Your task to perform on an android device: change timer sound Image 0: 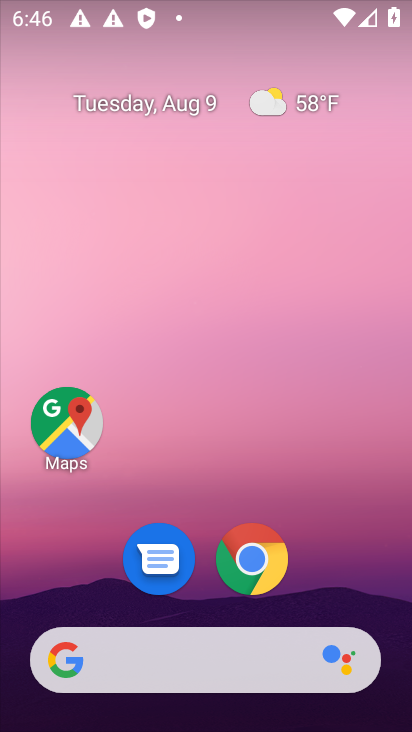
Step 0: drag from (200, 552) to (203, 161)
Your task to perform on an android device: change timer sound Image 1: 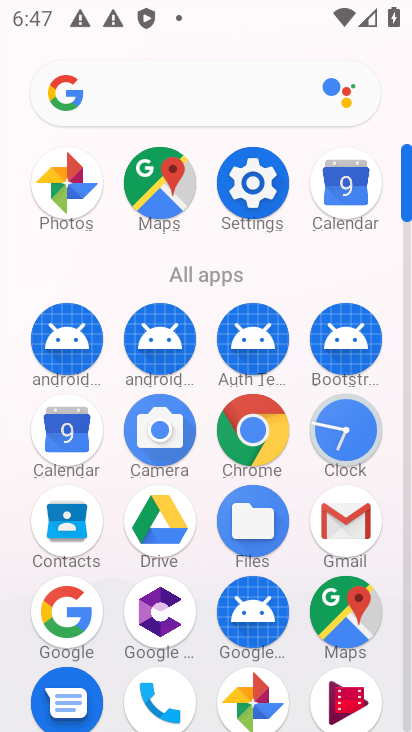
Step 1: click (255, 181)
Your task to perform on an android device: change timer sound Image 2: 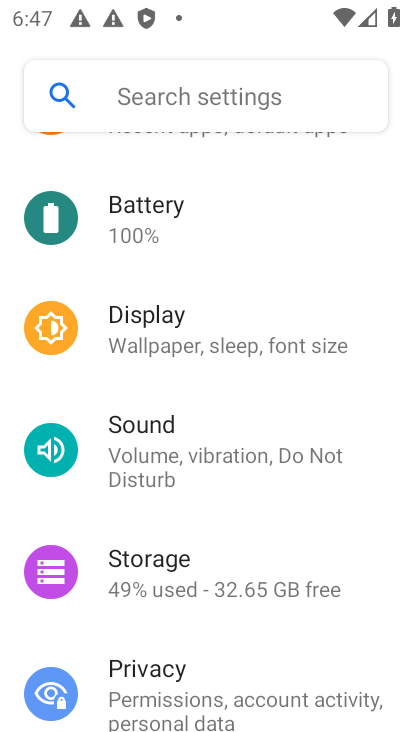
Step 2: press back button
Your task to perform on an android device: change timer sound Image 3: 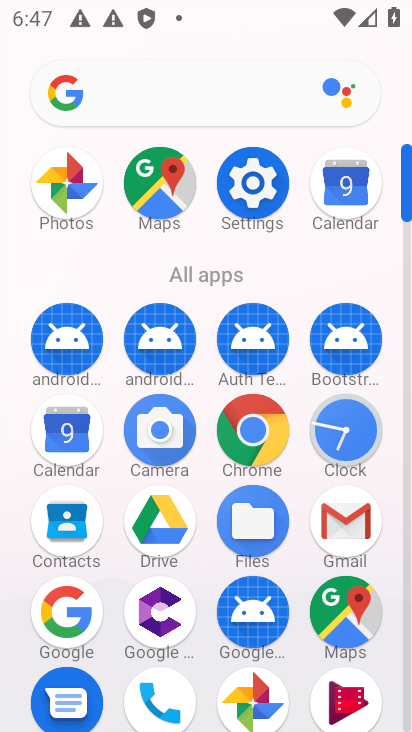
Step 3: click (344, 436)
Your task to perform on an android device: change timer sound Image 4: 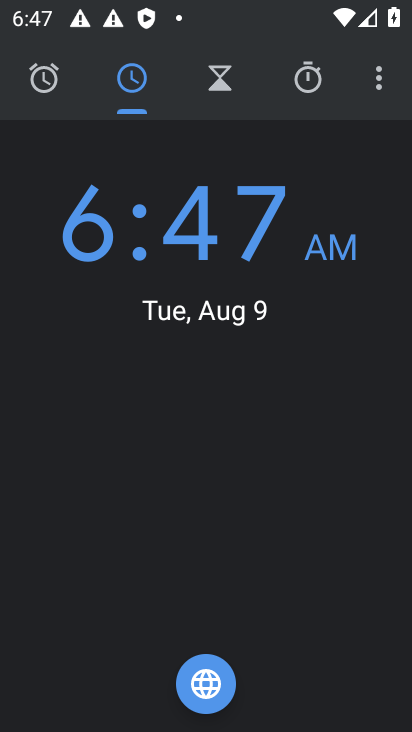
Step 4: click (376, 76)
Your task to perform on an android device: change timer sound Image 5: 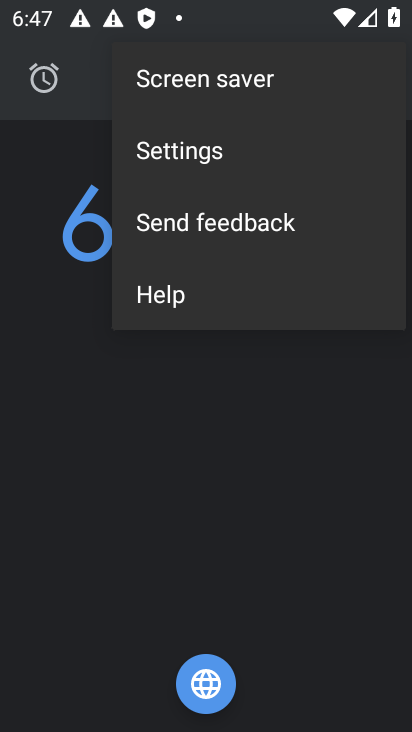
Step 5: click (217, 148)
Your task to perform on an android device: change timer sound Image 6: 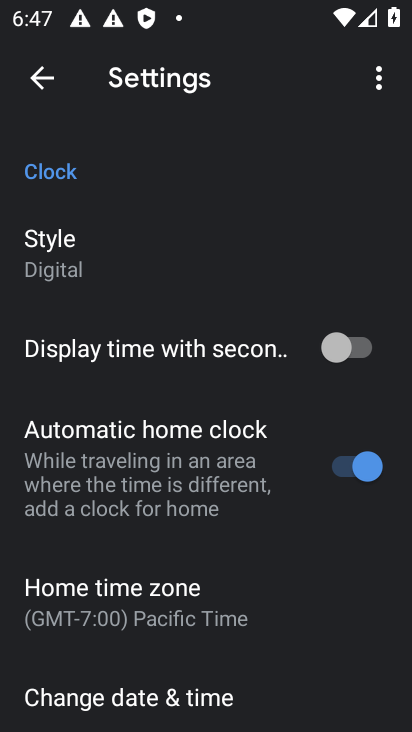
Step 6: drag from (271, 627) to (269, 468)
Your task to perform on an android device: change timer sound Image 7: 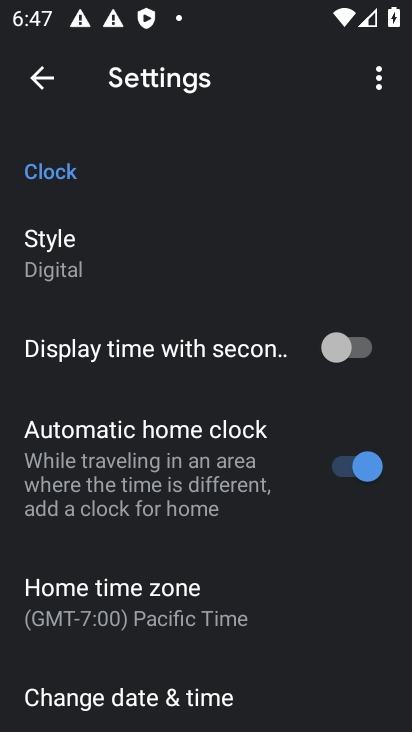
Step 7: drag from (125, 608) to (145, 377)
Your task to perform on an android device: change timer sound Image 8: 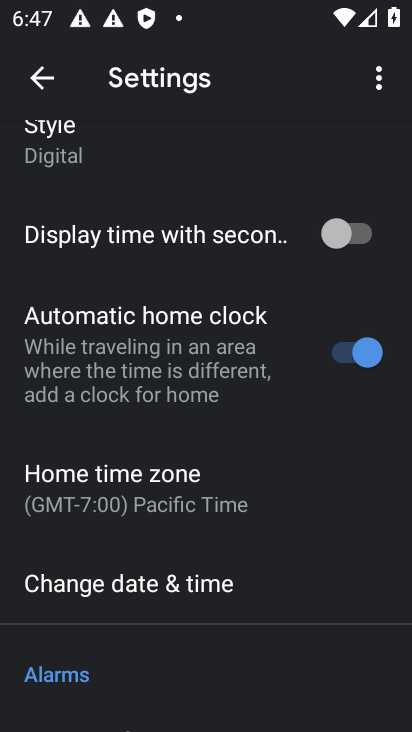
Step 8: drag from (240, 571) to (240, 306)
Your task to perform on an android device: change timer sound Image 9: 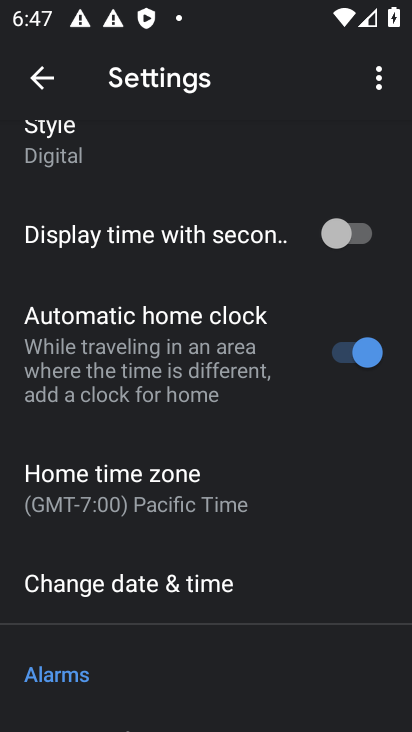
Step 9: drag from (120, 571) to (120, 288)
Your task to perform on an android device: change timer sound Image 10: 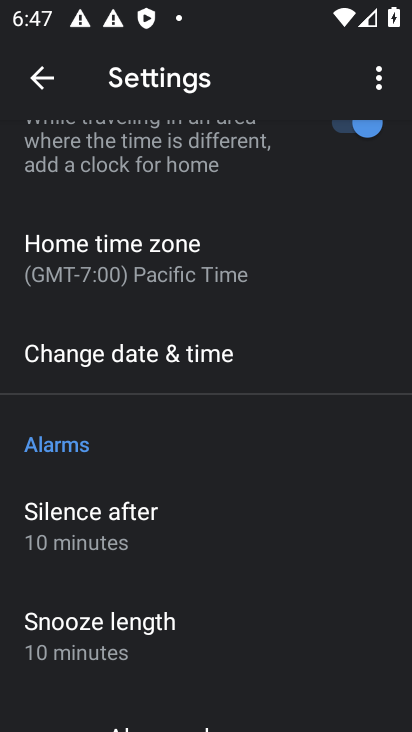
Step 10: drag from (163, 597) to (171, 118)
Your task to perform on an android device: change timer sound Image 11: 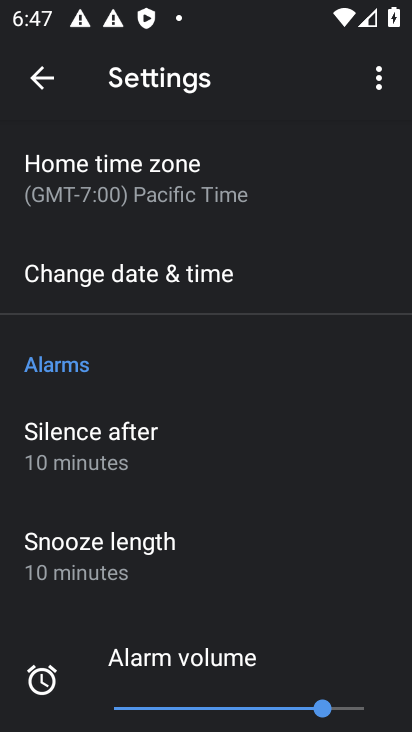
Step 11: drag from (179, 464) to (196, 252)
Your task to perform on an android device: change timer sound Image 12: 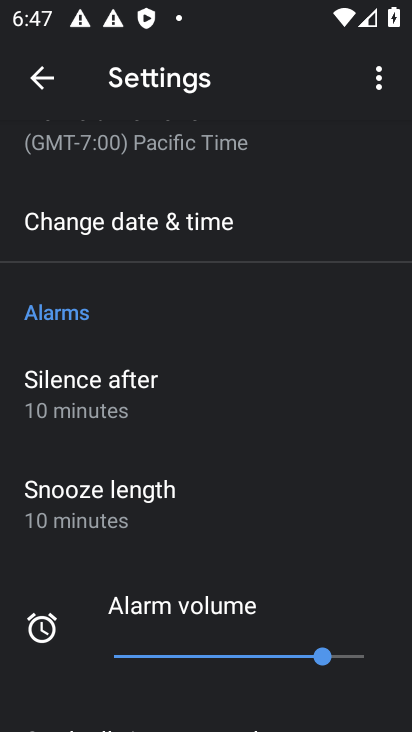
Step 12: drag from (153, 700) to (187, 403)
Your task to perform on an android device: change timer sound Image 13: 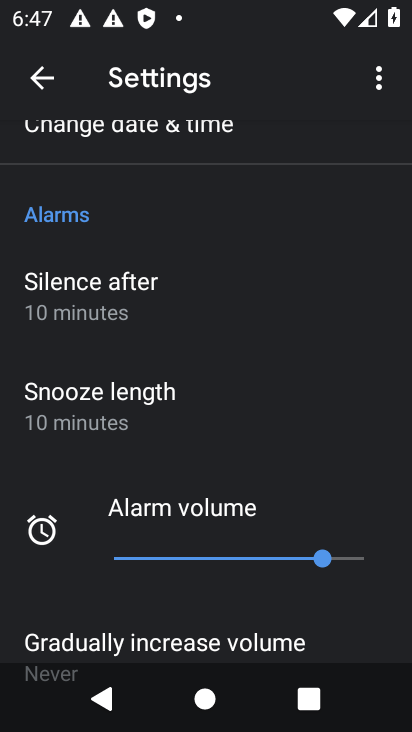
Step 13: drag from (147, 586) to (160, 281)
Your task to perform on an android device: change timer sound Image 14: 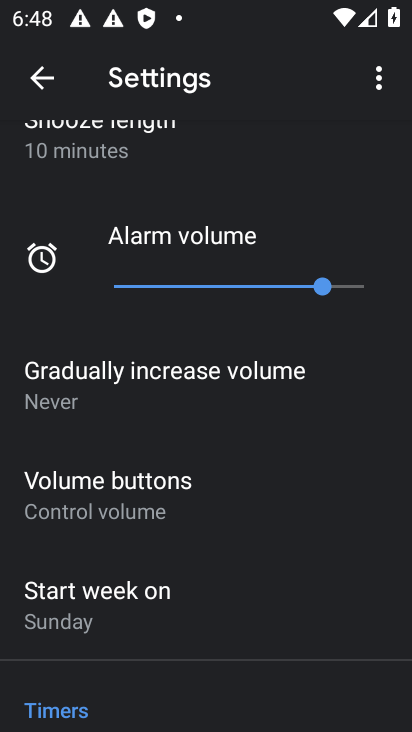
Step 14: drag from (165, 576) to (180, 366)
Your task to perform on an android device: change timer sound Image 15: 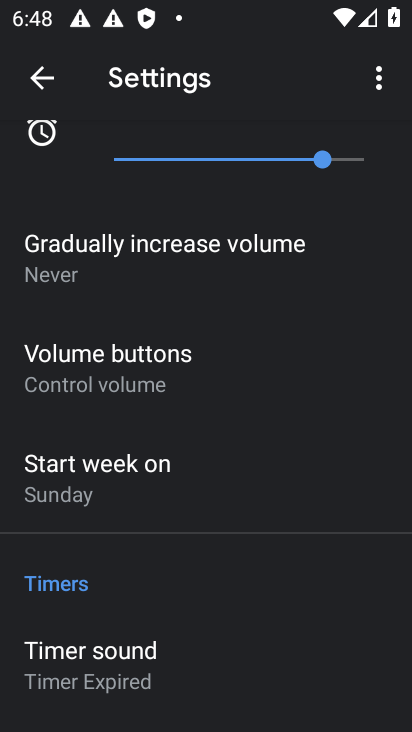
Step 15: drag from (184, 573) to (217, 305)
Your task to perform on an android device: change timer sound Image 16: 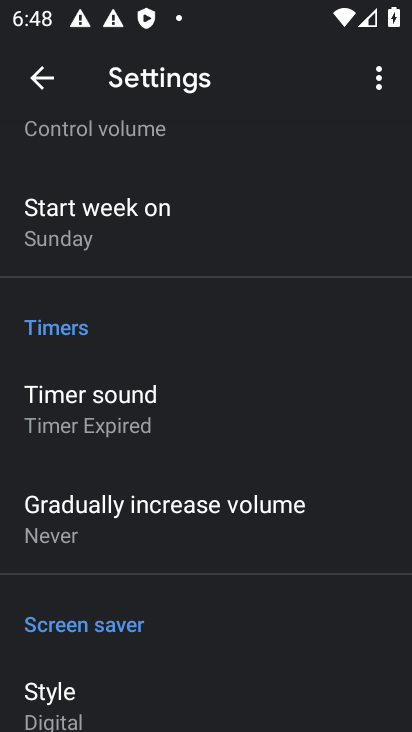
Step 16: click (116, 408)
Your task to perform on an android device: change timer sound Image 17: 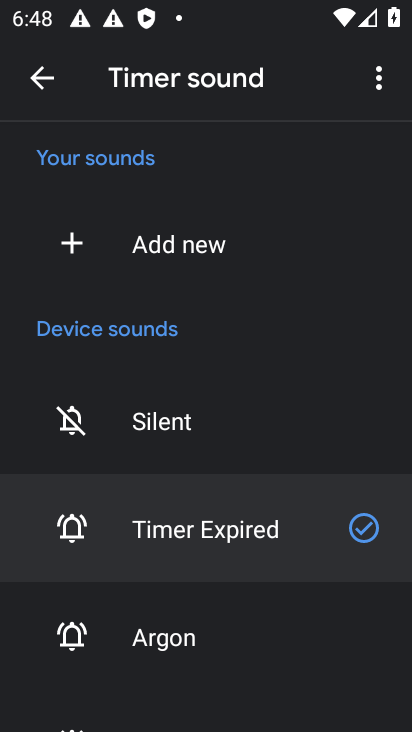
Step 17: click (171, 647)
Your task to perform on an android device: change timer sound Image 18: 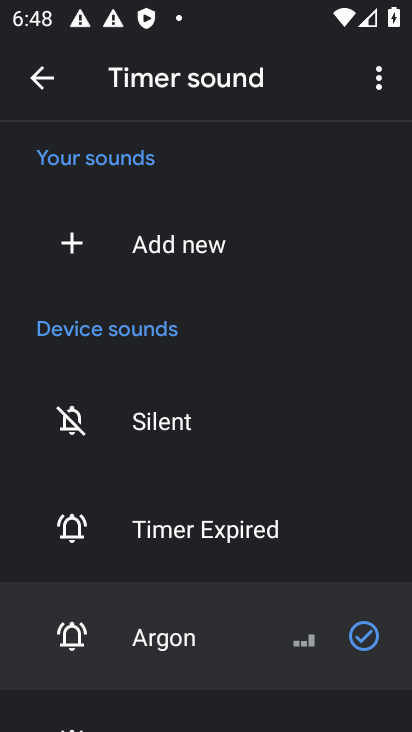
Step 18: task complete